Your task to perform on an android device: Add "sony triple a" to the cart on newegg.com, then select checkout. Image 0: 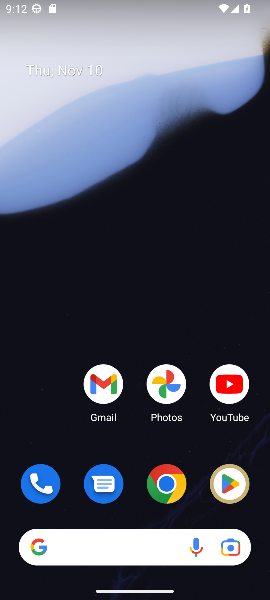
Step 0: click (166, 488)
Your task to perform on an android device: Add "sony triple a" to the cart on newegg.com, then select checkout. Image 1: 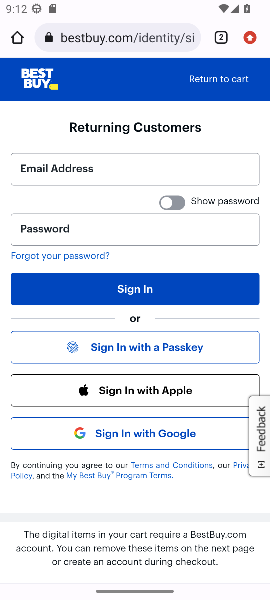
Step 1: click (112, 39)
Your task to perform on an android device: Add "sony triple a" to the cart on newegg.com, then select checkout. Image 2: 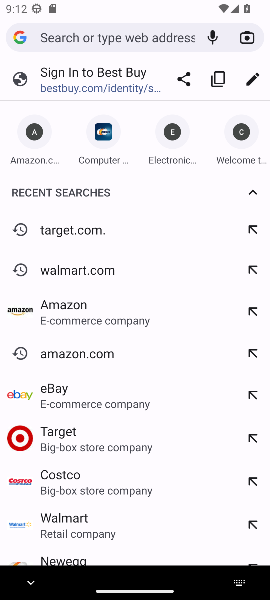
Step 2: type "newegg.com"
Your task to perform on an android device: Add "sony triple a" to the cart on newegg.com, then select checkout. Image 3: 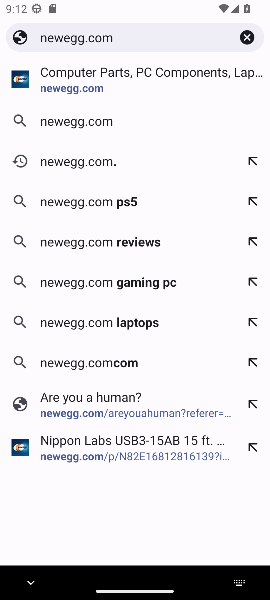
Step 3: click (55, 91)
Your task to perform on an android device: Add "sony triple a" to the cart on newegg.com, then select checkout. Image 4: 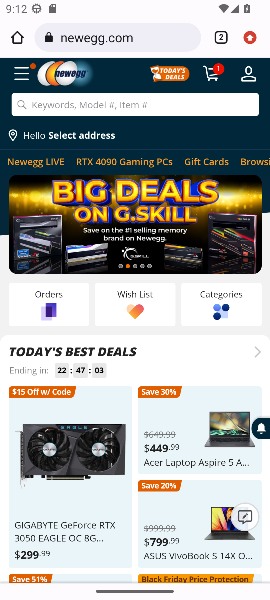
Step 4: click (125, 99)
Your task to perform on an android device: Add "sony triple a" to the cart on newegg.com, then select checkout. Image 5: 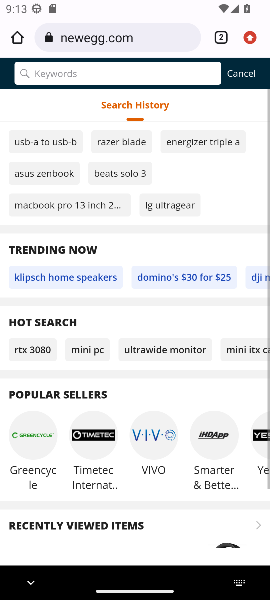
Step 5: click (72, 63)
Your task to perform on an android device: Add "sony triple a" to the cart on newegg.com, then select checkout. Image 6: 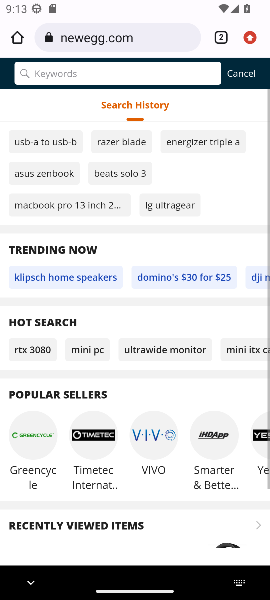
Step 6: type "sony triple a"
Your task to perform on an android device: Add "sony triple a" to the cart on newegg.com, then select checkout. Image 7: 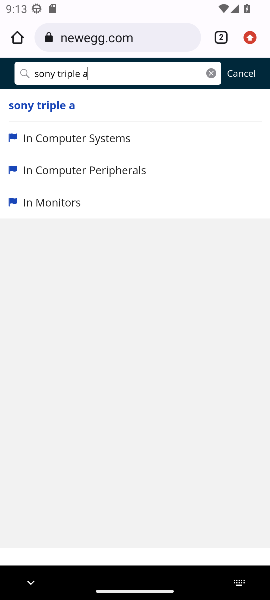
Step 7: click (74, 109)
Your task to perform on an android device: Add "sony triple a" to the cart on newegg.com, then select checkout. Image 8: 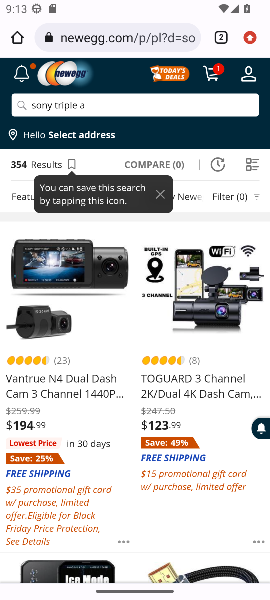
Step 8: task complete